Your task to perform on an android device: check google app version Image 0: 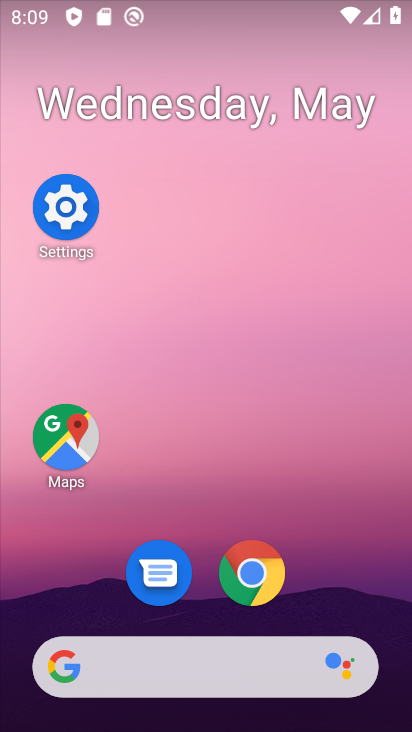
Step 0: drag from (295, 624) to (277, 262)
Your task to perform on an android device: check google app version Image 1: 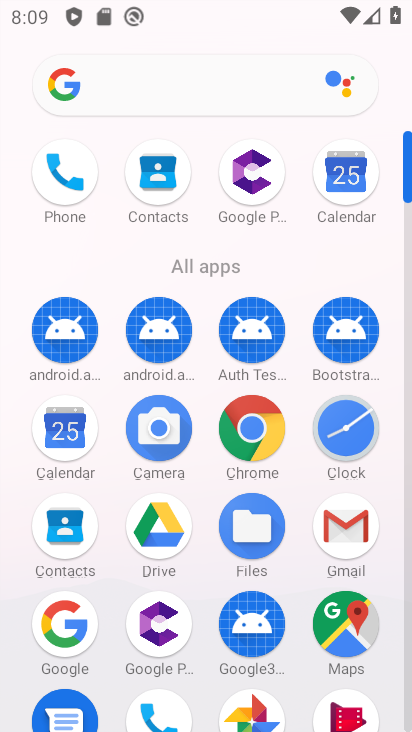
Step 1: drag from (66, 629) to (66, 374)
Your task to perform on an android device: check google app version Image 2: 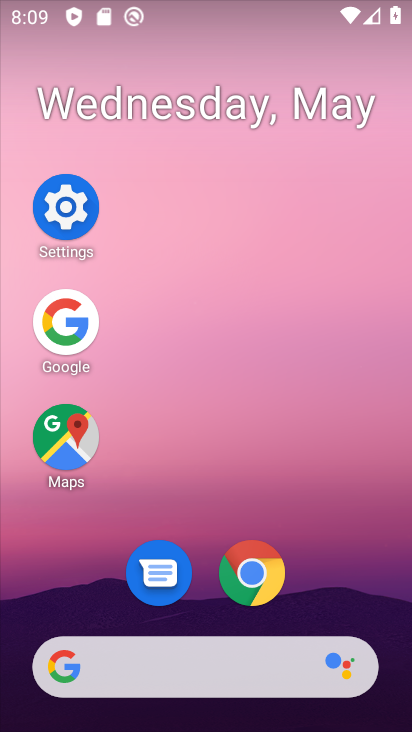
Step 2: click (70, 334)
Your task to perform on an android device: check google app version Image 3: 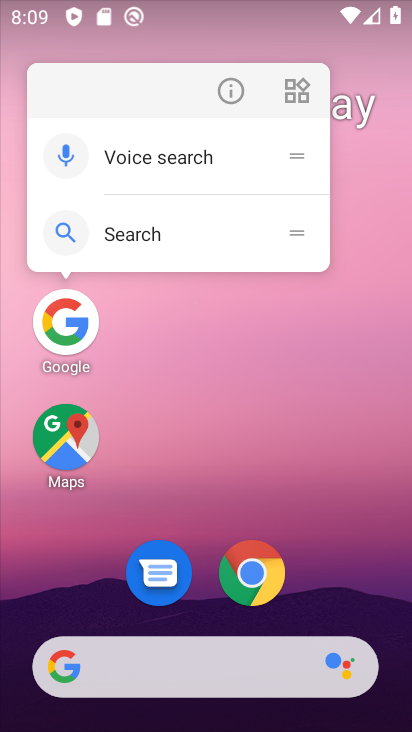
Step 3: click (229, 83)
Your task to perform on an android device: check google app version Image 4: 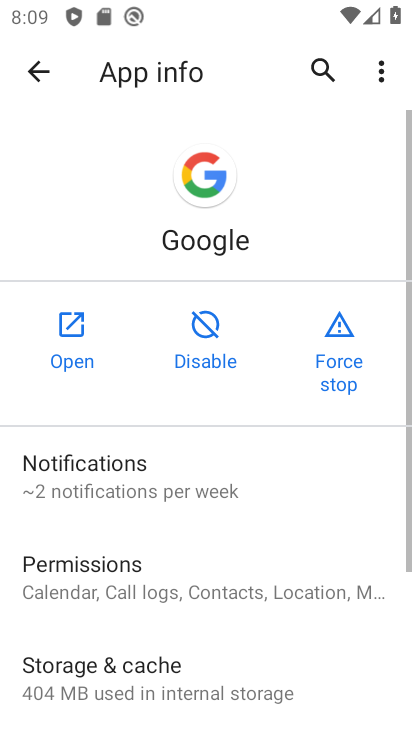
Step 4: drag from (276, 531) to (273, 174)
Your task to perform on an android device: check google app version Image 5: 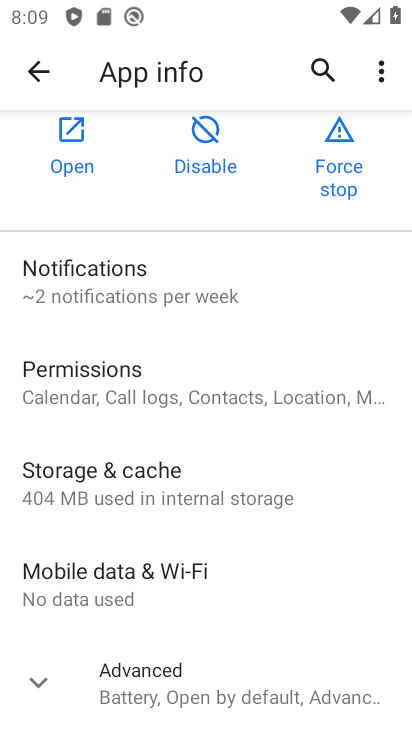
Step 5: click (176, 679)
Your task to perform on an android device: check google app version Image 6: 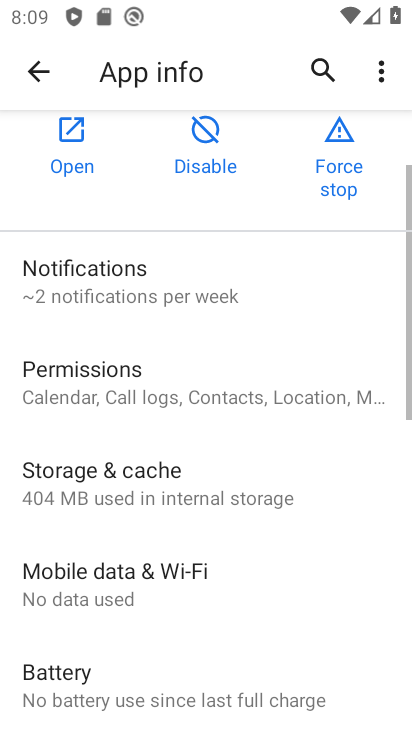
Step 6: task complete